Your task to perform on an android device: Do I have any events today? Image 0: 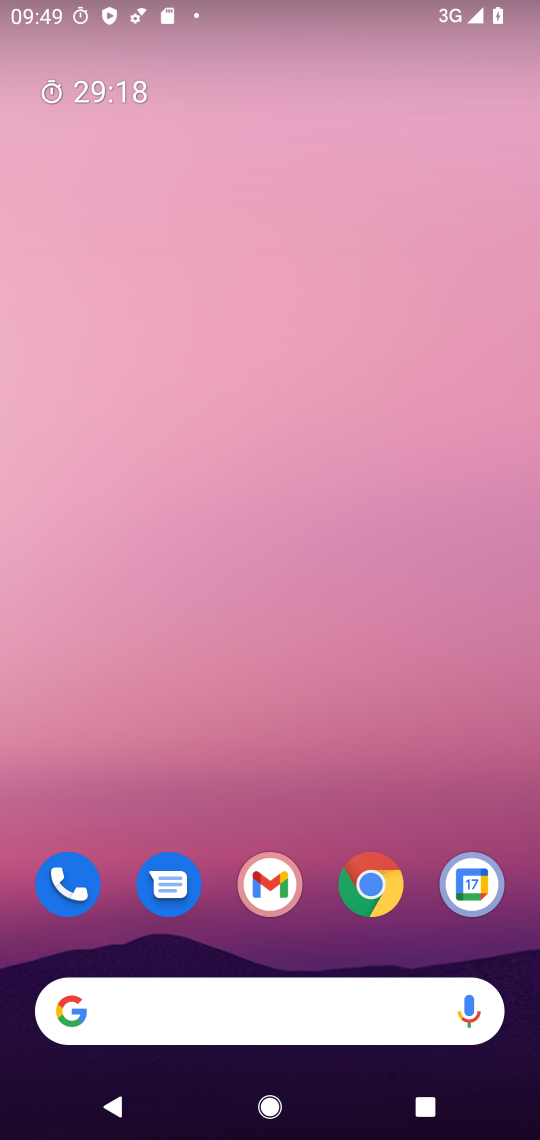
Step 0: drag from (294, 725) to (294, 218)
Your task to perform on an android device: Do I have any events today? Image 1: 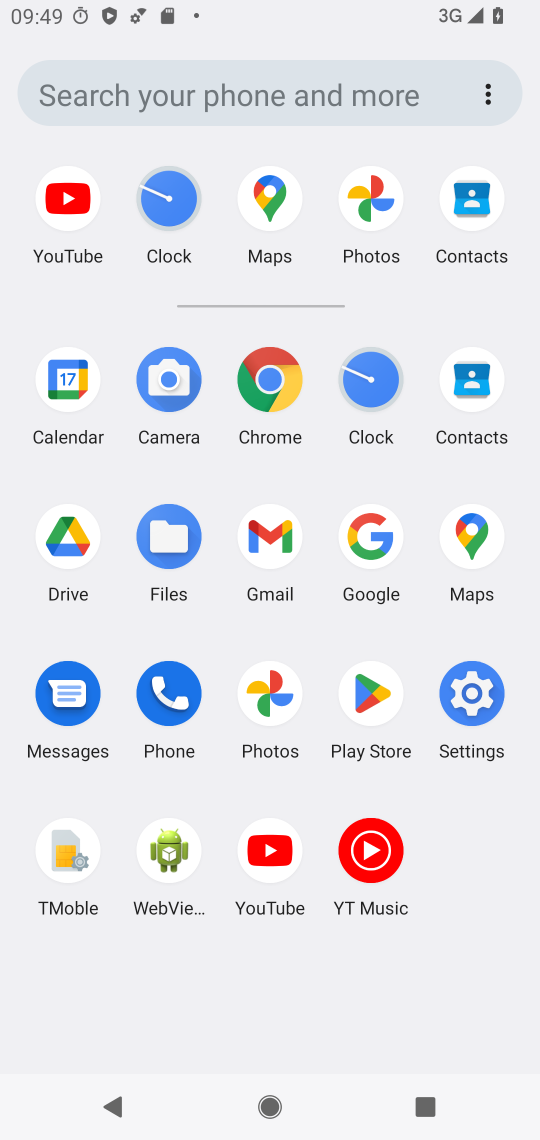
Step 1: click (72, 390)
Your task to perform on an android device: Do I have any events today? Image 2: 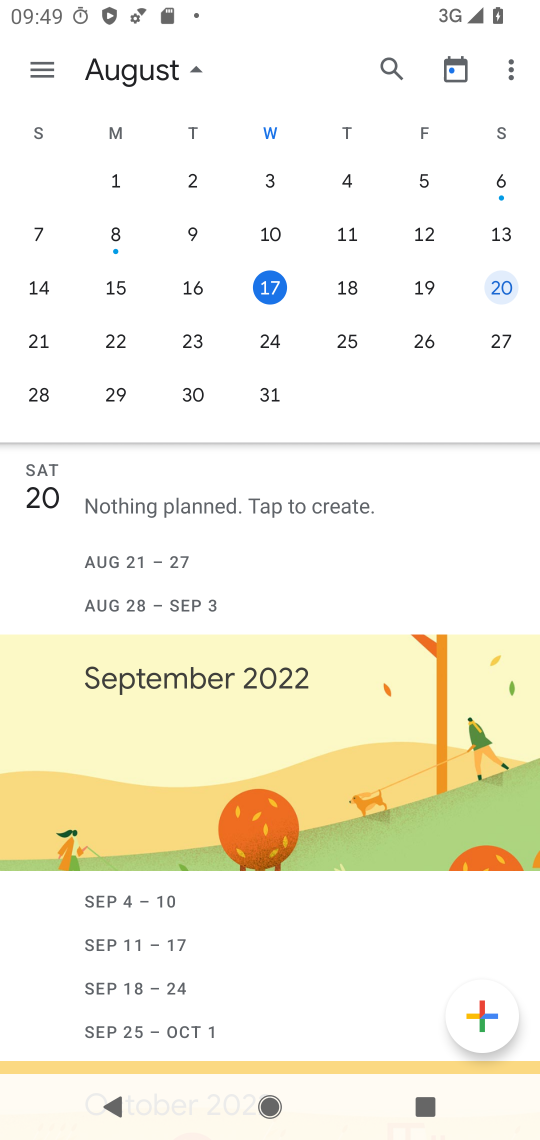
Step 2: click (284, 302)
Your task to perform on an android device: Do I have any events today? Image 3: 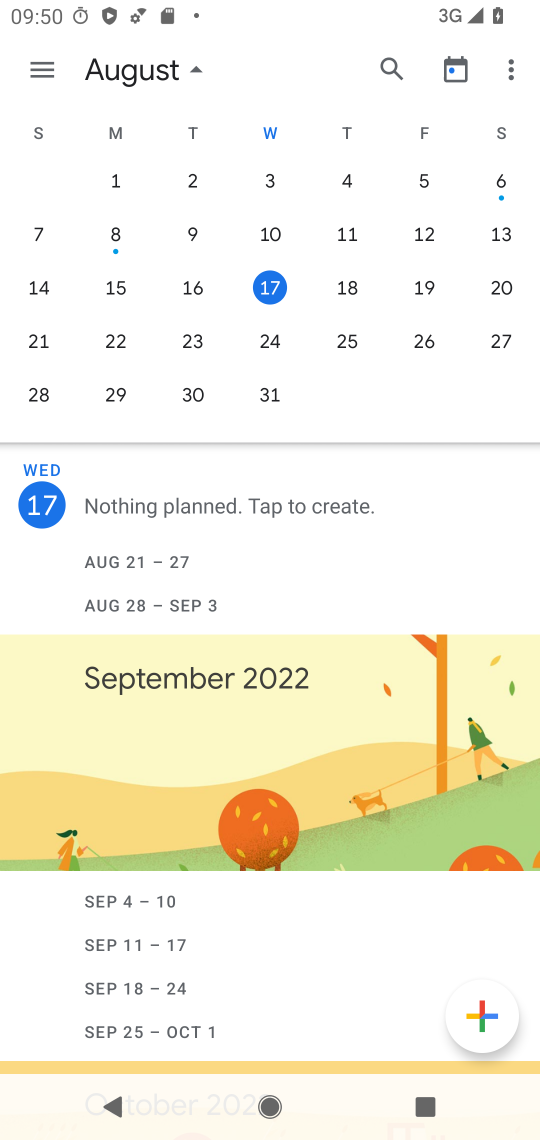
Step 3: task complete